Your task to perform on an android device: turn on improve location accuracy Image 0: 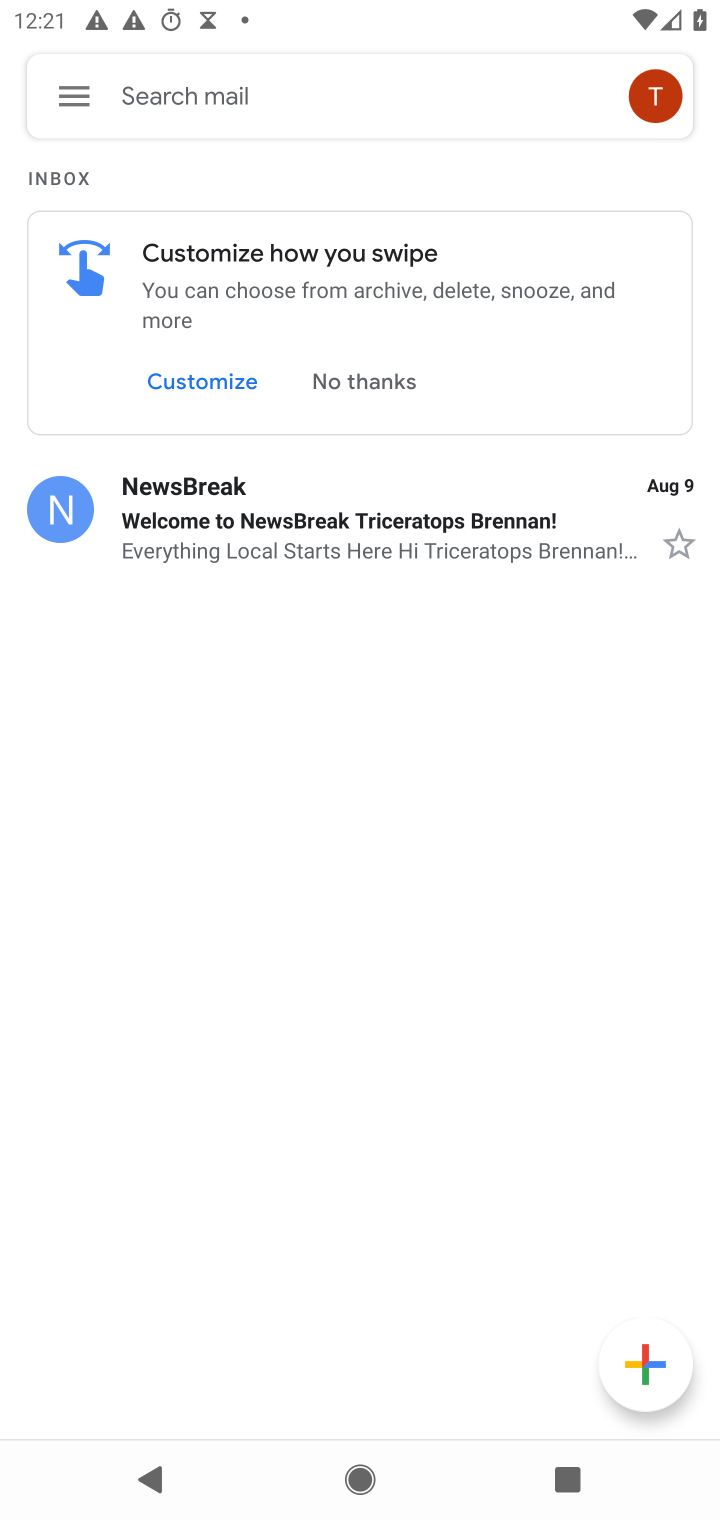
Step 0: press home button
Your task to perform on an android device: turn on improve location accuracy Image 1: 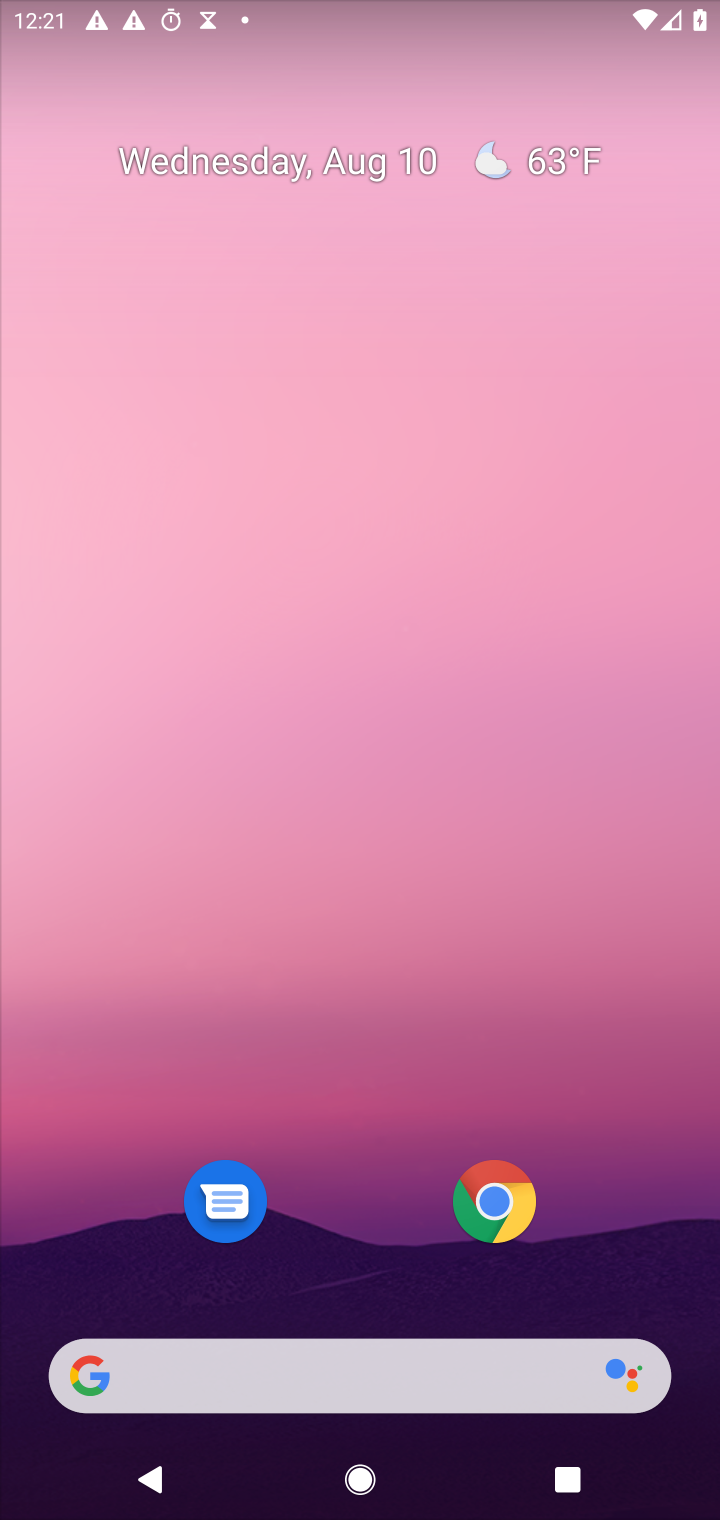
Step 1: drag from (409, 1256) to (466, 229)
Your task to perform on an android device: turn on improve location accuracy Image 2: 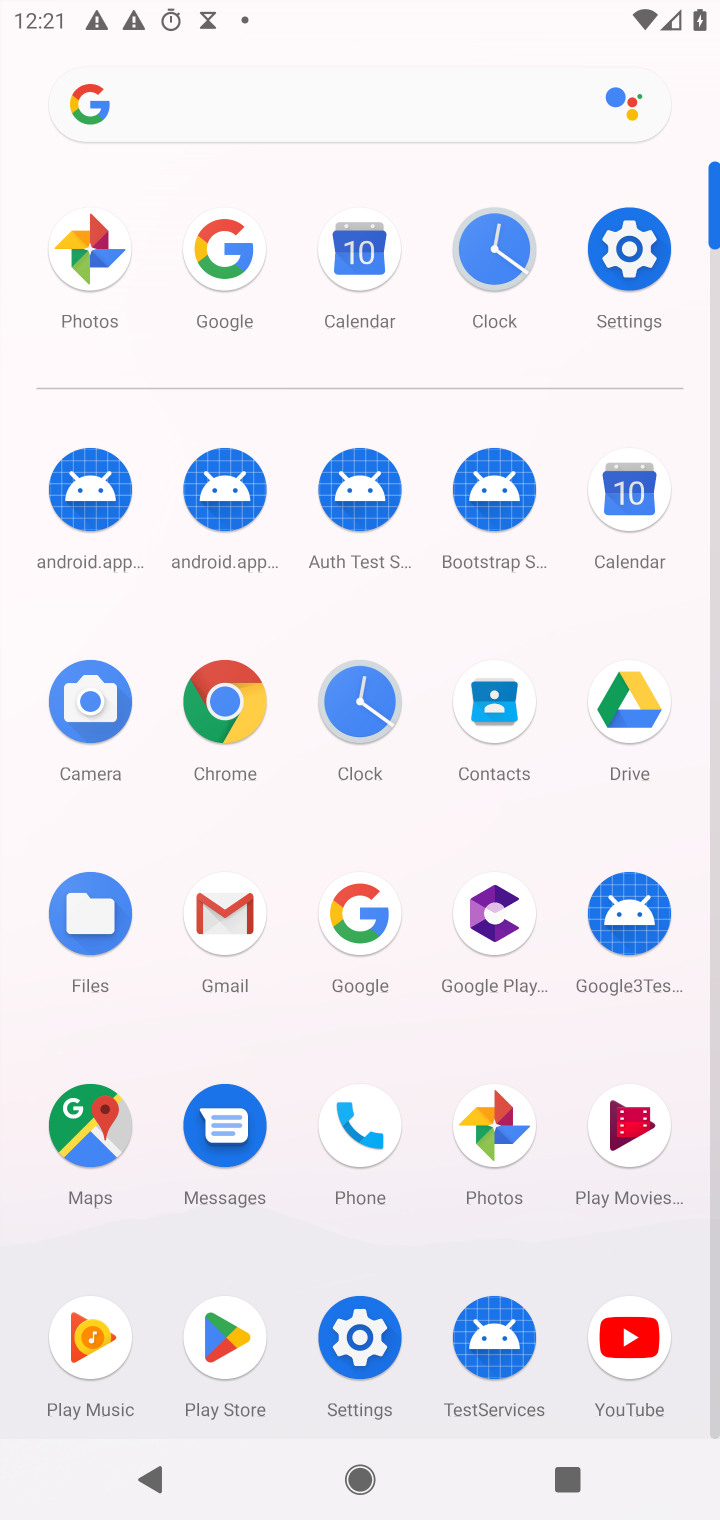
Step 2: click (629, 226)
Your task to perform on an android device: turn on improve location accuracy Image 3: 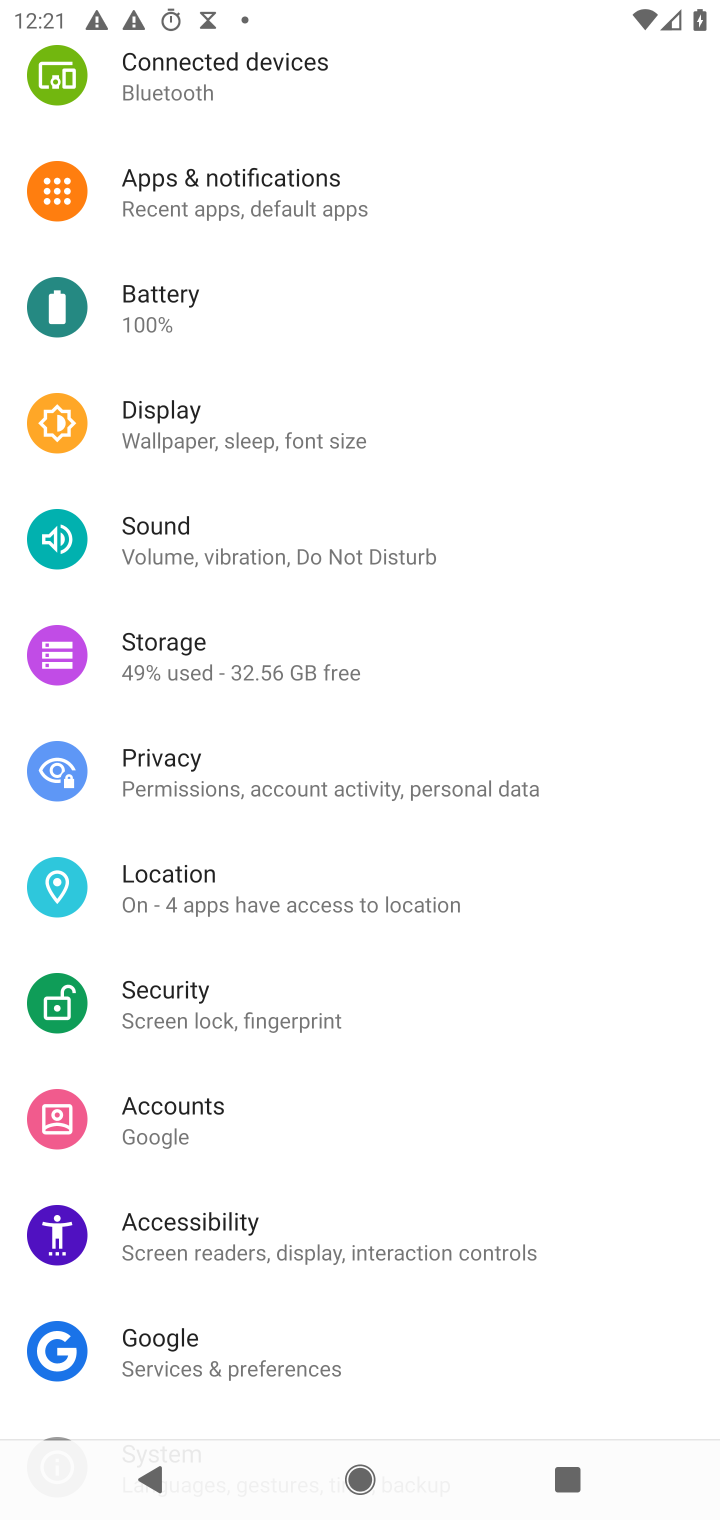
Step 3: click (282, 902)
Your task to perform on an android device: turn on improve location accuracy Image 4: 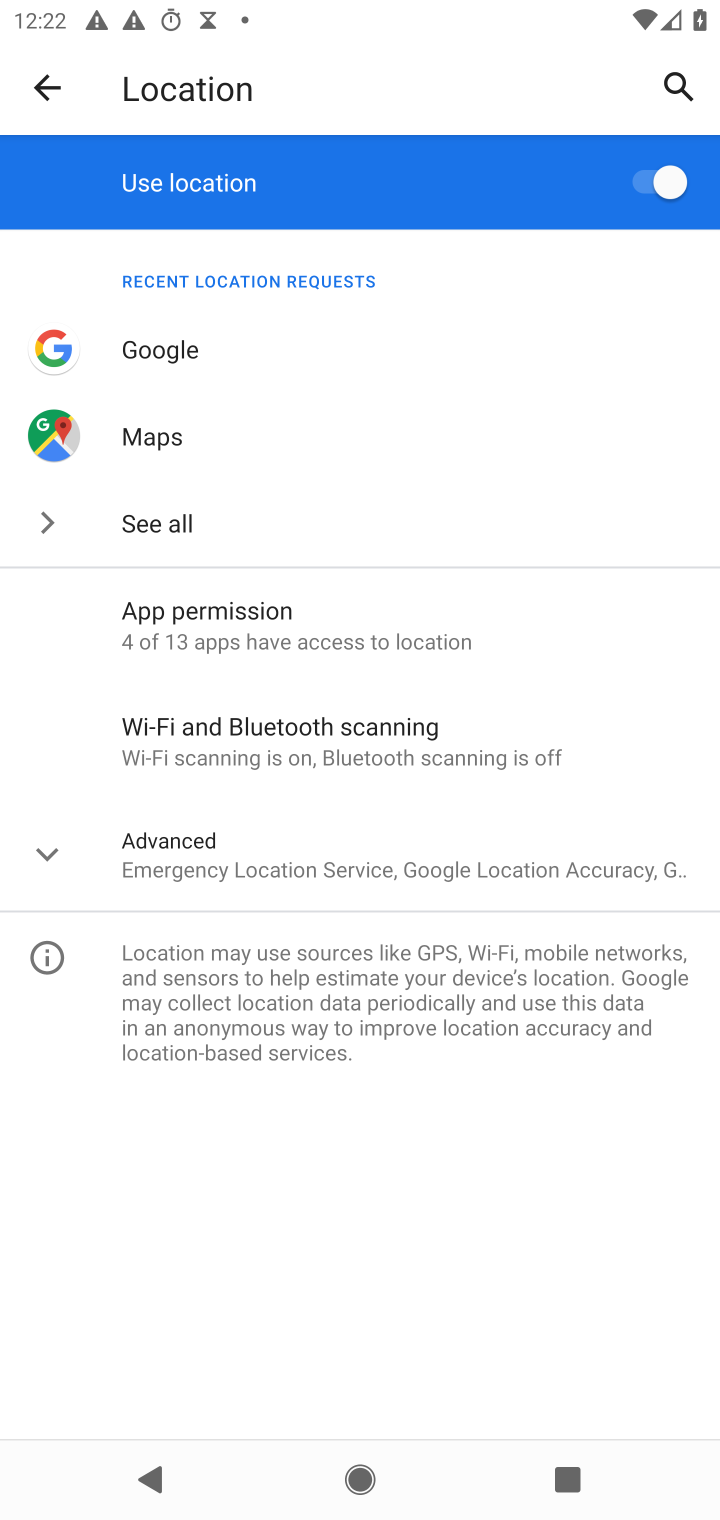
Step 4: click (51, 838)
Your task to perform on an android device: turn on improve location accuracy Image 5: 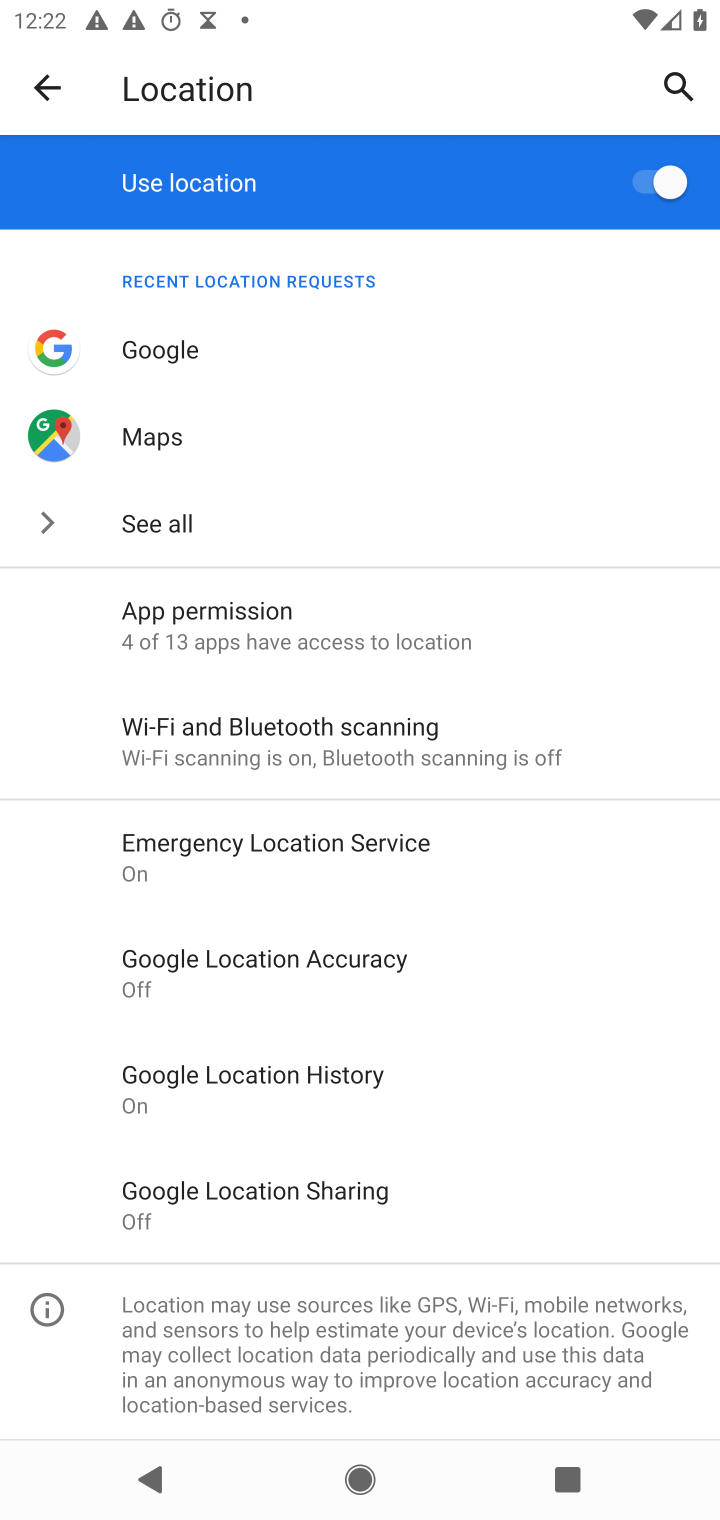
Step 5: click (346, 955)
Your task to perform on an android device: turn on improve location accuracy Image 6: 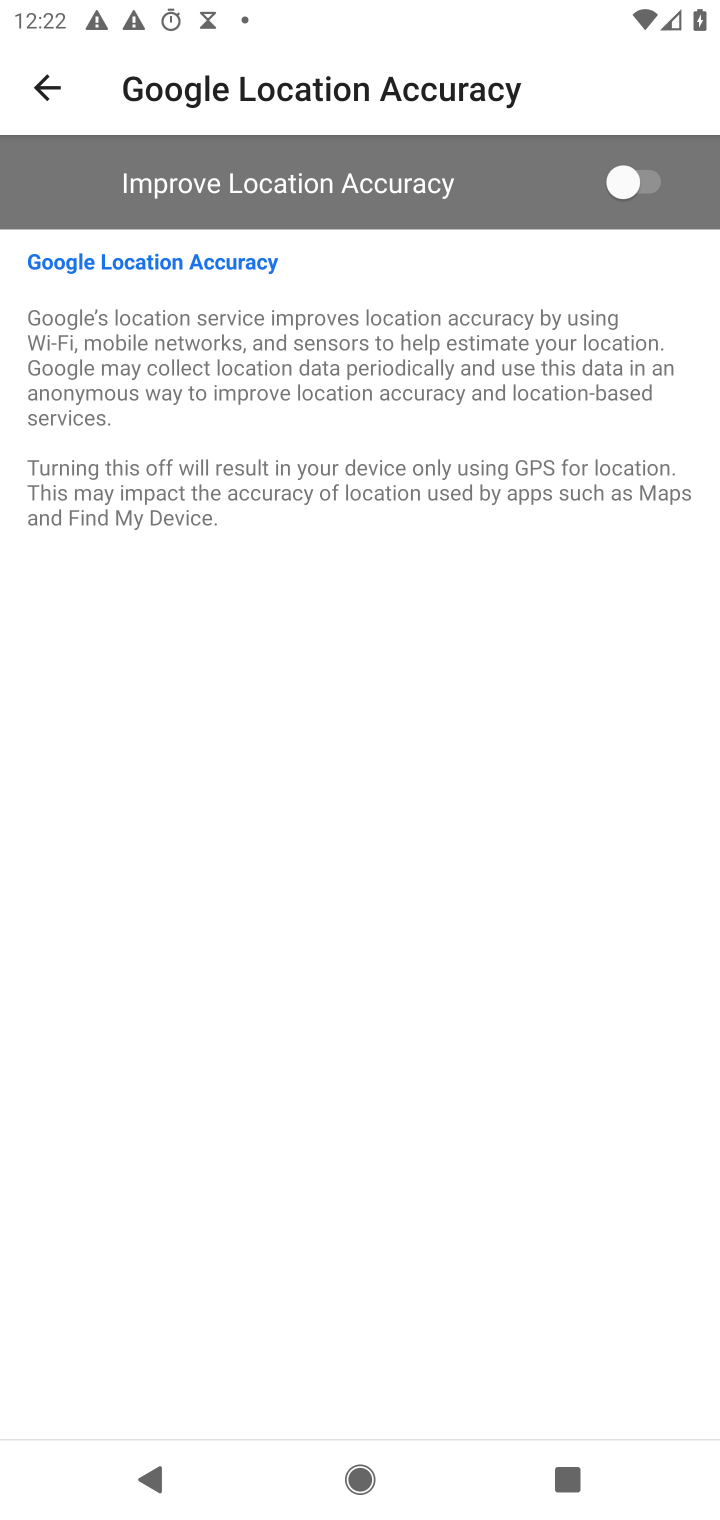
Step 6: click (635, 178)
Your task to perform on an android device: turn on improve location accuracy Image 7: 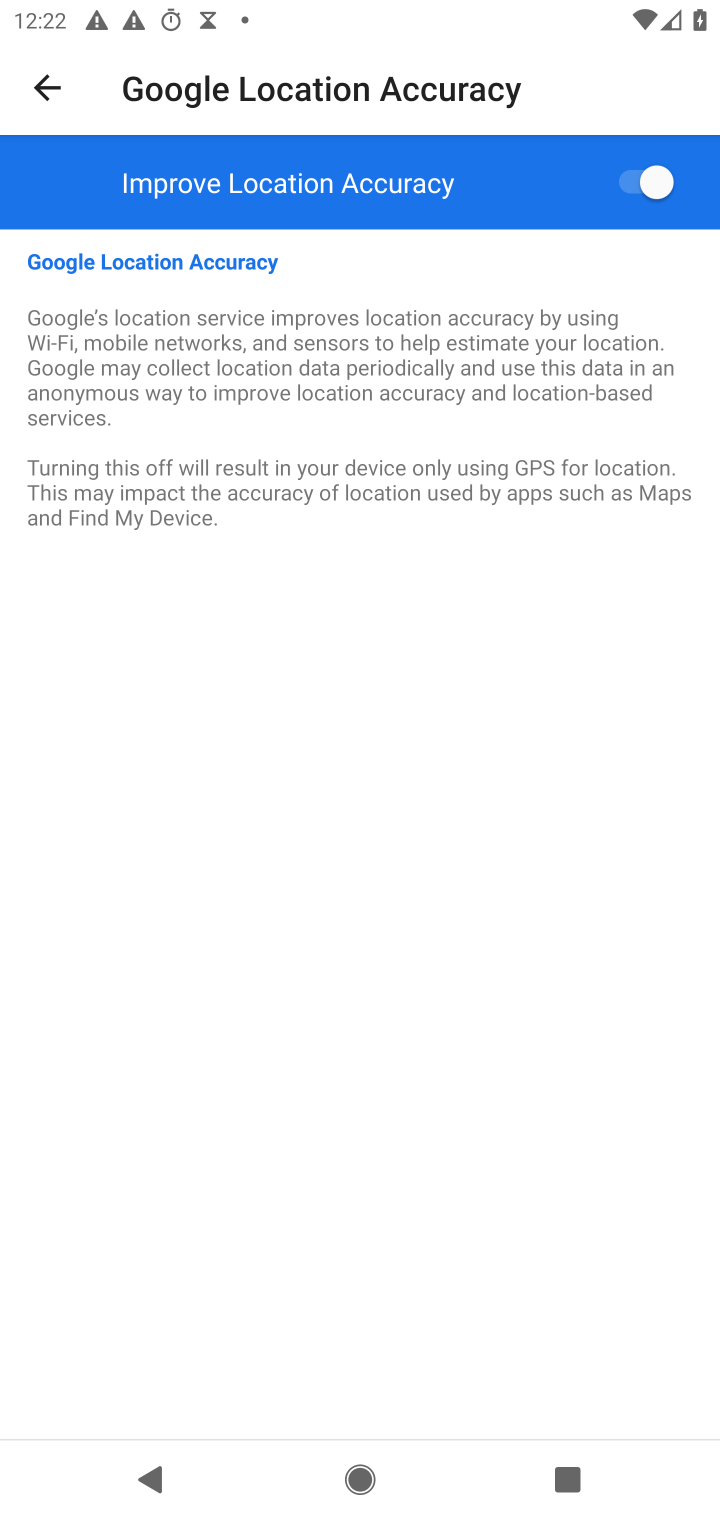
Step 7: task complete